Your task to perform on an android device: manage bookmarks in the chrome app Image 0: 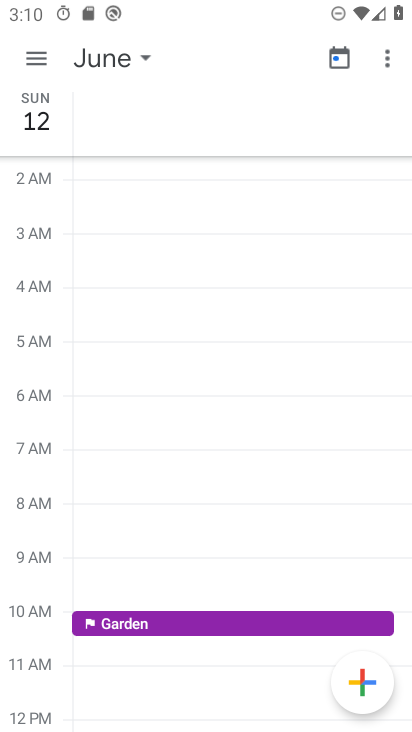
Step 0: press home button
Your task to perform on an android device: manage bookmarks in the chrome app Image 1: 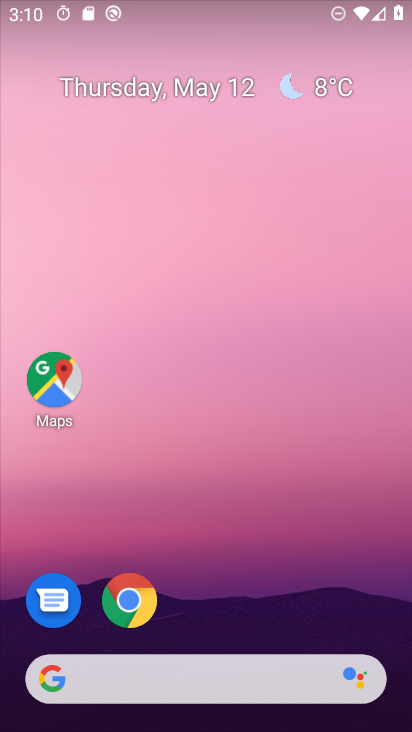
Step 1: click (136, 603)
Your task to perform on an android device: manage bookmarks in the chrome app Image 2: 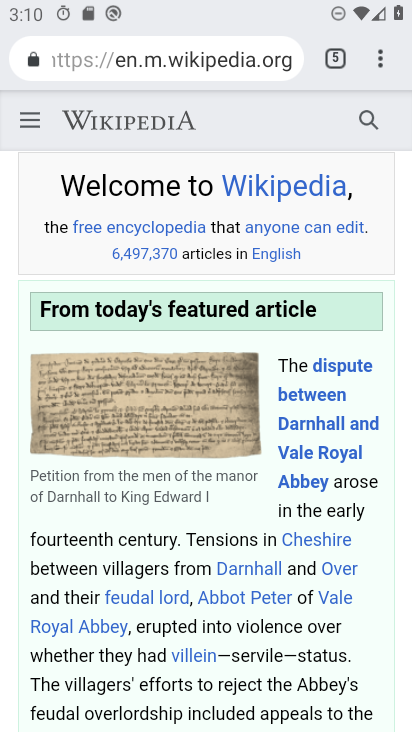
Step 2: click (381, 64)
Your task to perform on an android device: manage bookmarks in the chrome app Image 3: 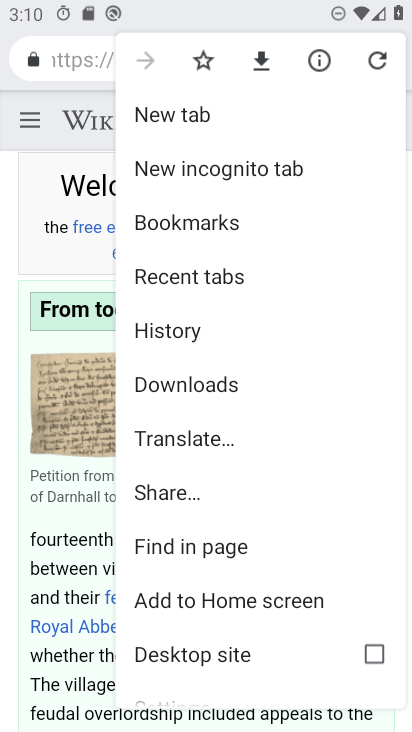
Step 3: click (183, 218)
Your task to perform on an android device: manage bookmarks in the chrome app Image 4: 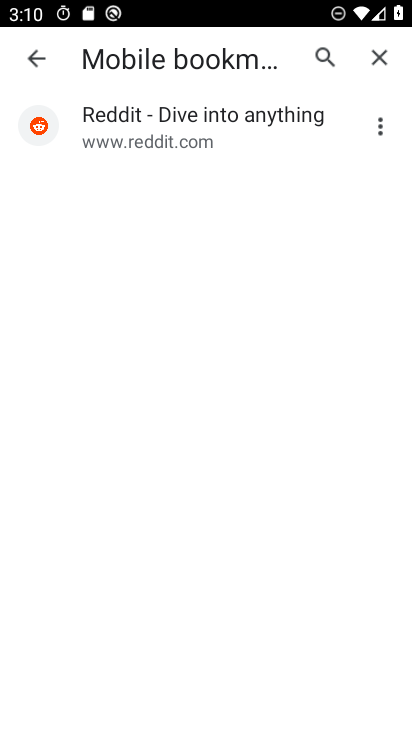
Step 4: click (382, 129)
Your task to perform on an android device: manage bookmarks in the chrome app Image 5: 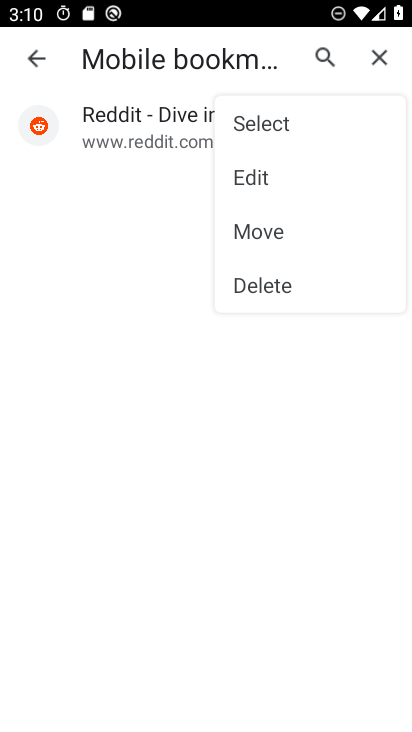
Step 5: click (241, 182)
Your task to perform on an android device: manage bookmarks in the chrome app Image 6: 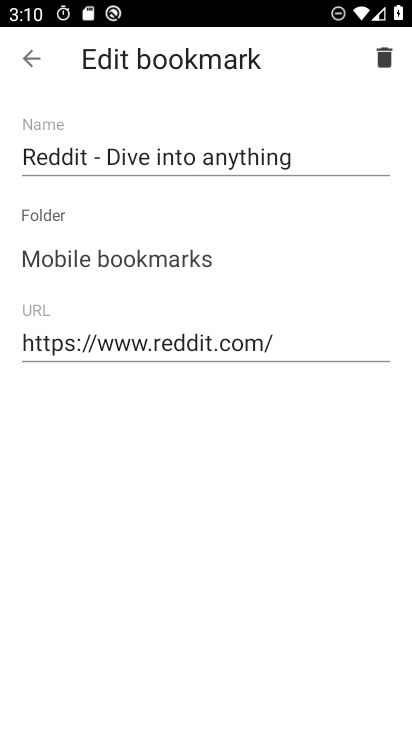
Step 6: click (252, 155)
Your task to perform on an android device: manage bookmarks in the chrome app Image 7: 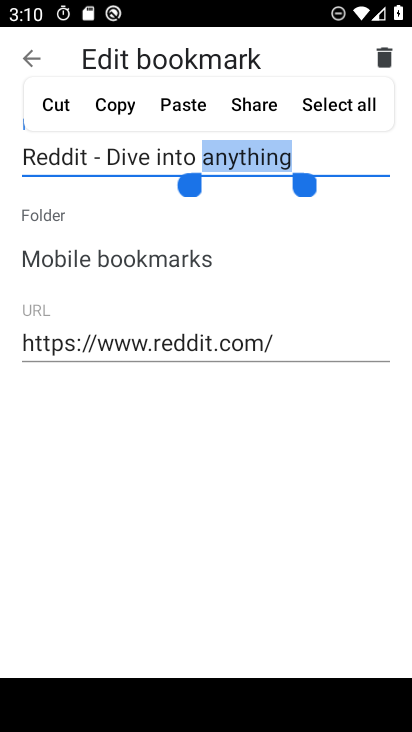
Step 7: click (61, 102)
Your task to perform on an android device: manage bookmarks in the chrome app Image 8: 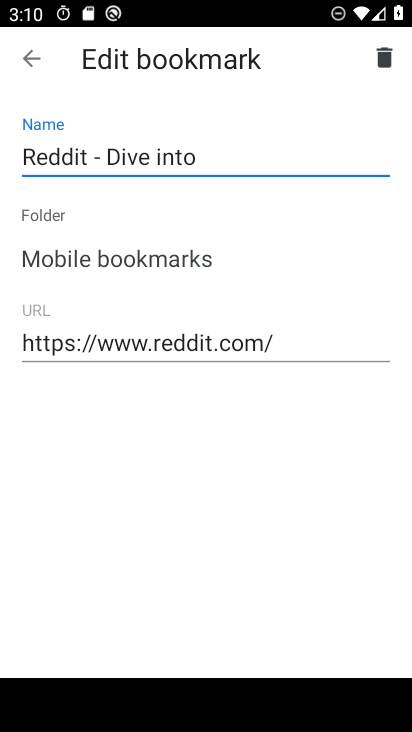
Step 8: type "anytime"
Your task to perform on an android device: manage bookmarks in the chrome app Image 9: 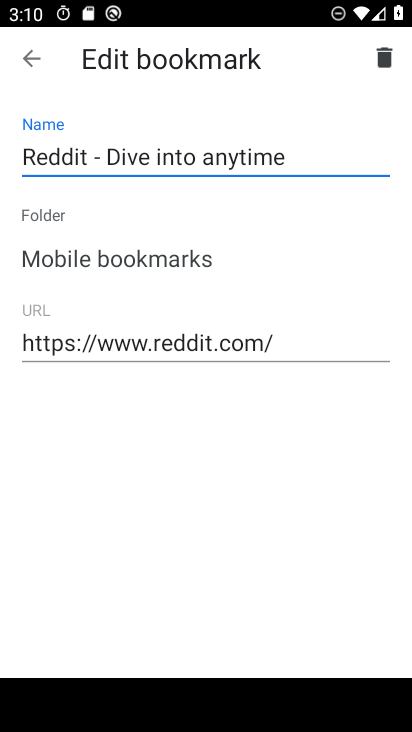
Step 9: click (28, 54)
Your task to perform on an android device: manage bookmarks in the chrome app Image 10: 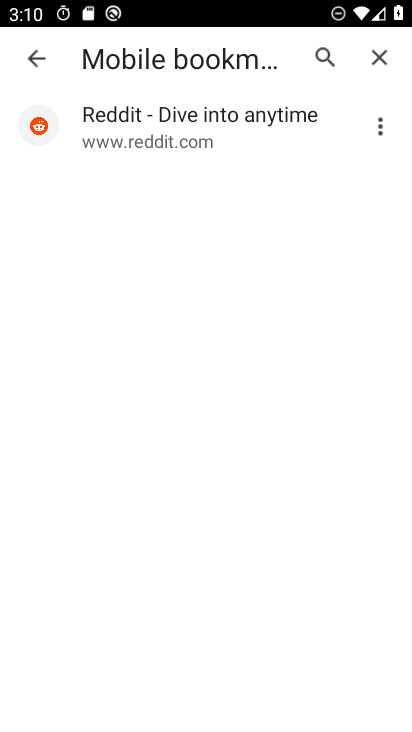
Step 10: task complete